Your task to perform on an android device: Open privacy settings Image 0: 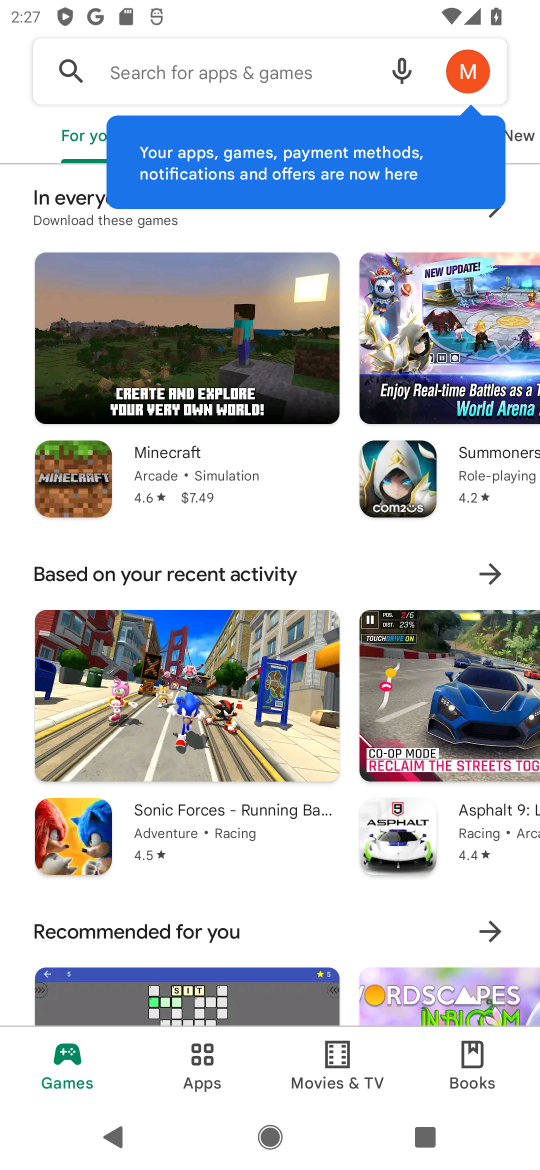
Step 0: press home button
Your task to perform on an android device: Open privacy settings Image 1: 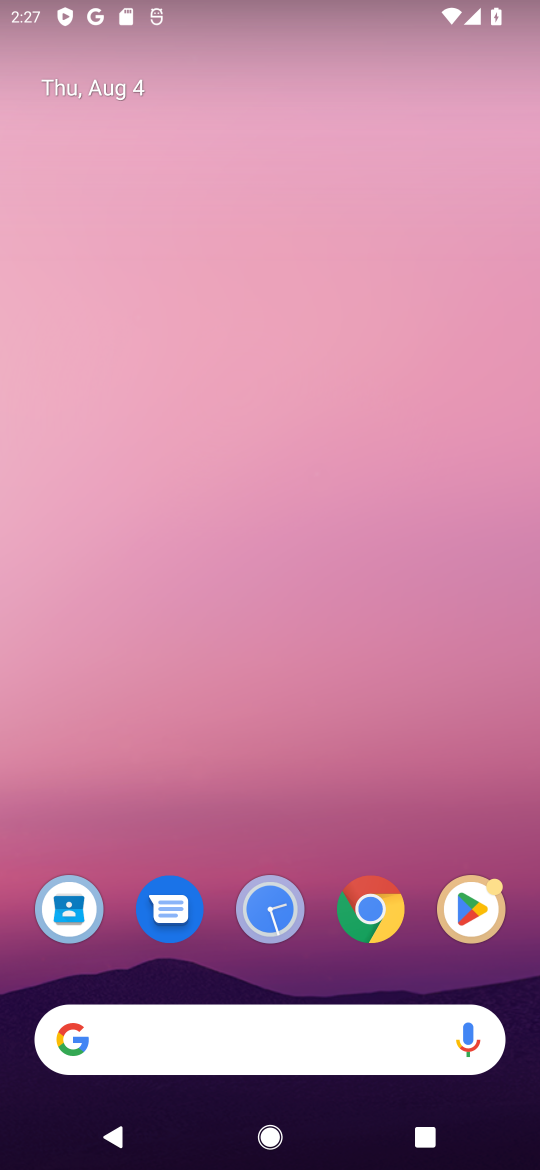
Step 1: drag from (312, 828) to (398, 251)
Your task to perform on an android device: Open privacy settings Image 2: 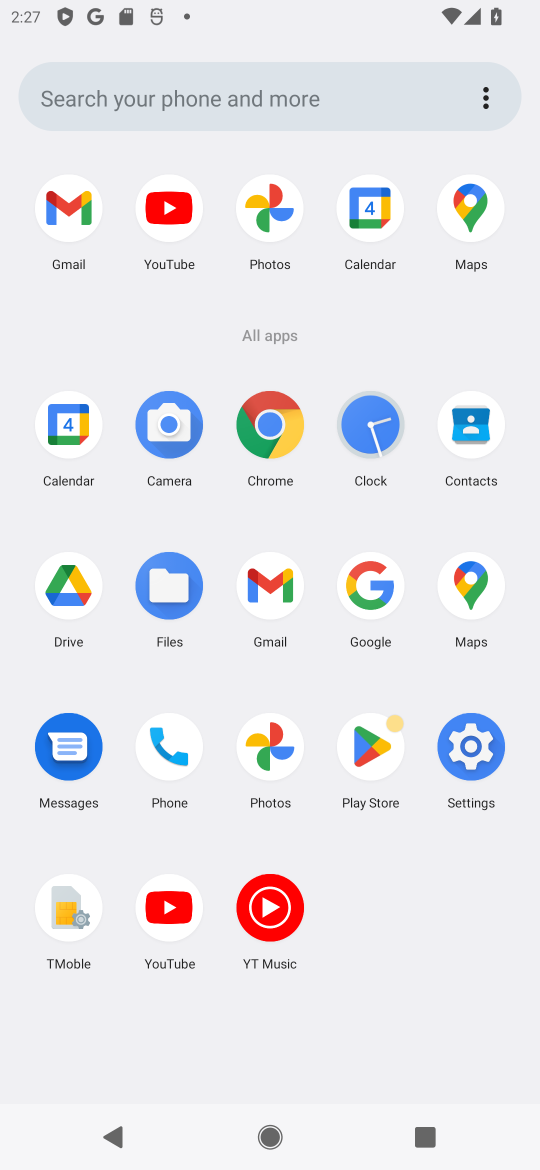
Step 2: click (469, 727)
Your task to perform on an android device: Open privacy settings Image 3: 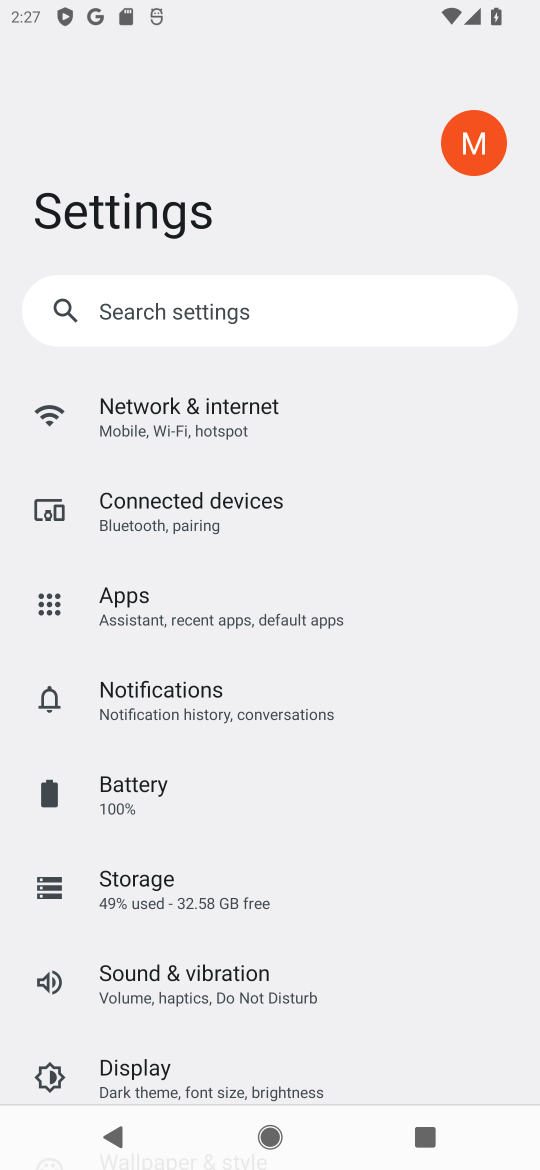
Step 3: drag from (339, 836) to (464, 152)
Your task to perform on an android device: Open privacy settings Image 4: 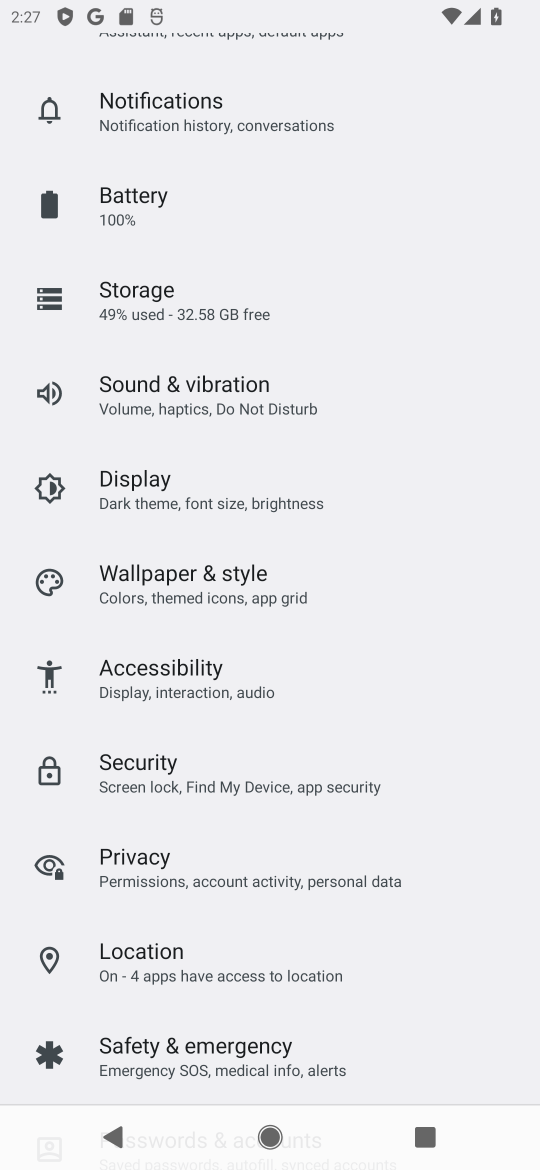
Step 4: click (147, 866)
Your task to perform on an android device: Open privacy settings Image 5: 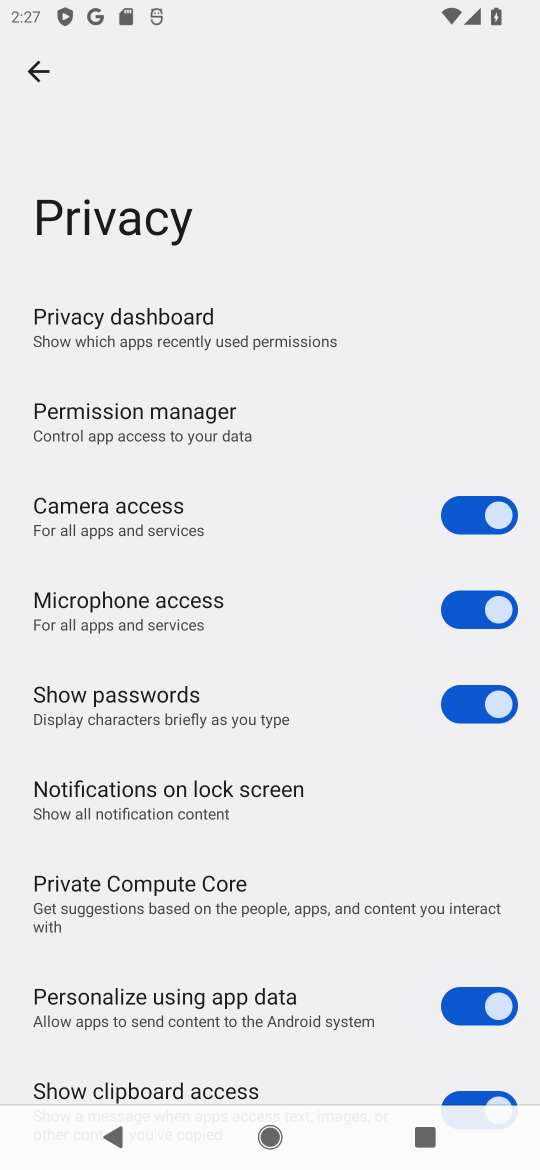
Step 5: task complete